Your task to perform on an android device: Is it going to rain today? Image 0: 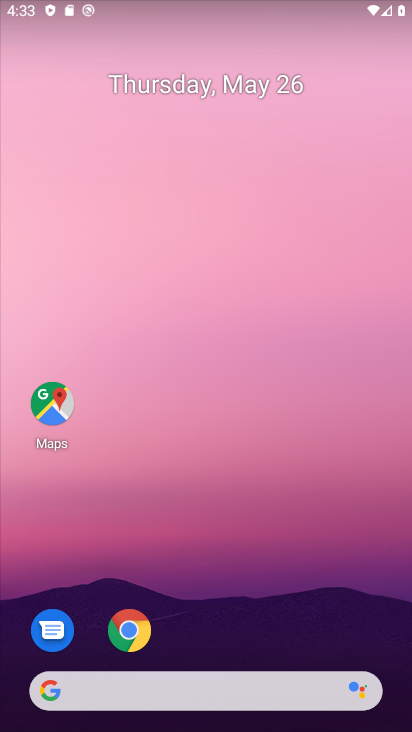
Step 0: drag from (167, 668) to (279, 141)
Your task to perform on an android device: Is it going to rain today? Image 1: 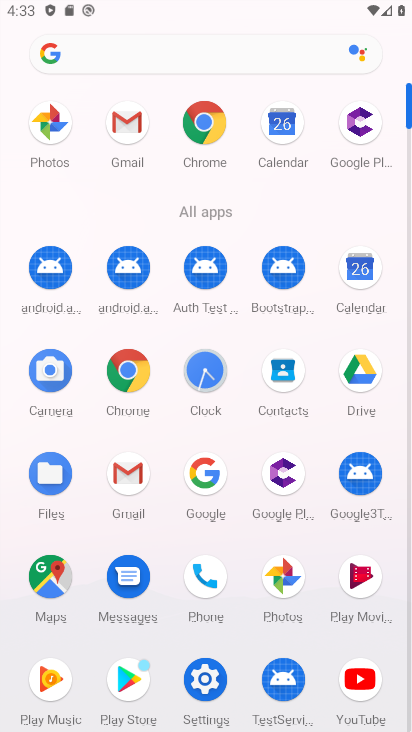
Step 1: click (204, 479)
Your task to perform on an android device: Is it going to rain today? Image 2: 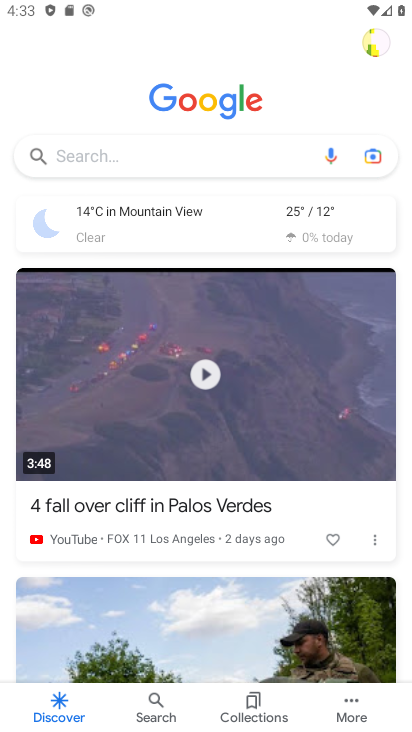
Step 2: click (121, 153)
Your task to perform on an android device: Is it going to rain today? Image 3: 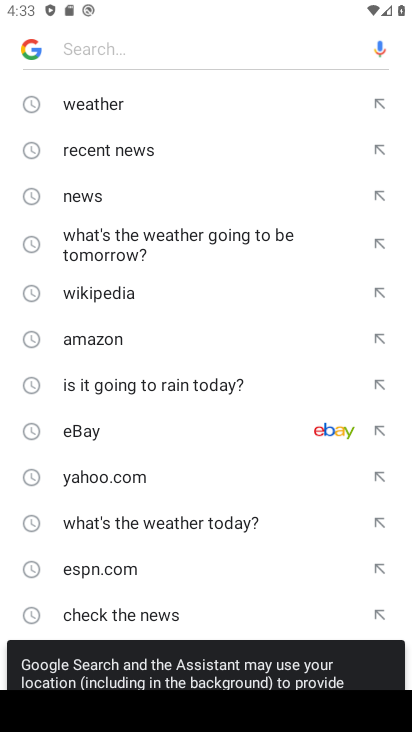
Step 3: click (143, 385)
Your task to perform on an android device: Is it going to rain today? Image 4: 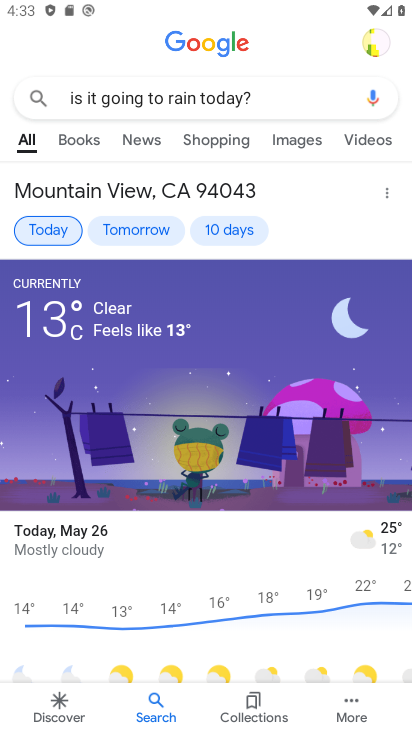
Step 4: task complete